Your task to perform on an android device: change the clock display to show seconds Image 0: 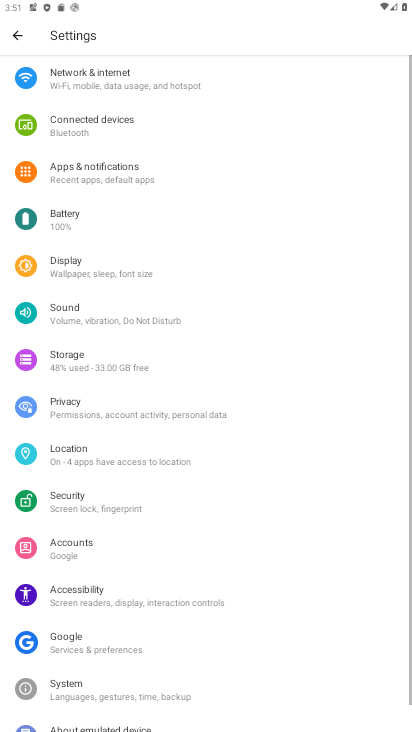
Step 0: press home button
Your task to perform on an android device: change the clock display to show seconds Image 1: 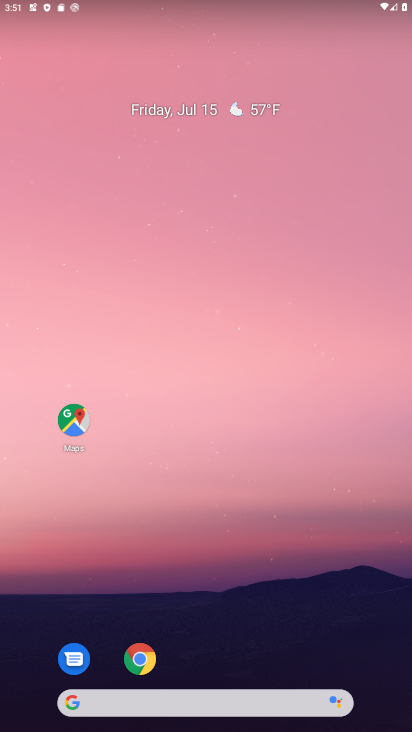
Step 1: drag from (184, 698) to (167, 340)
Your task to perform on an android device: change the clock display to show seconds Image 2: 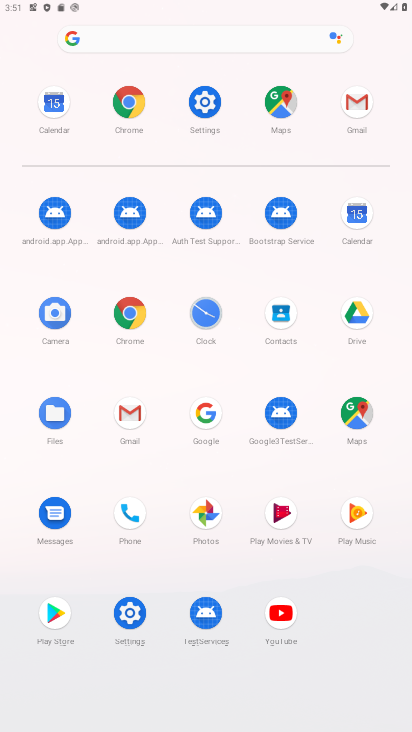
Step 2: click (197, 316)
Your task to perform on an android device: change the clock display to show seconds Image 3: 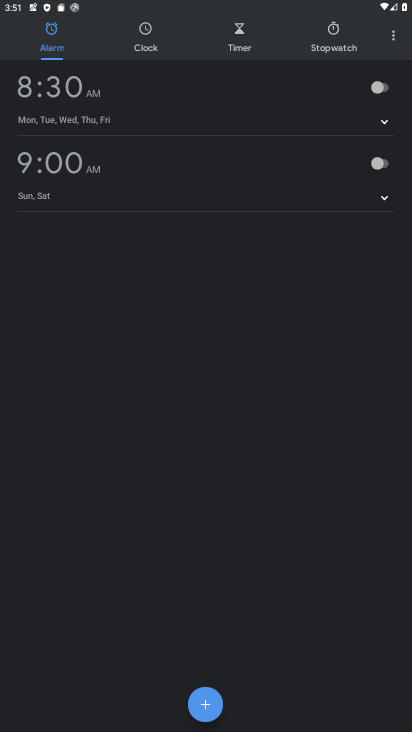
Step 3: click (399, 35)
Your task to perform on an android device: change the clock display to show seconds Image 4: 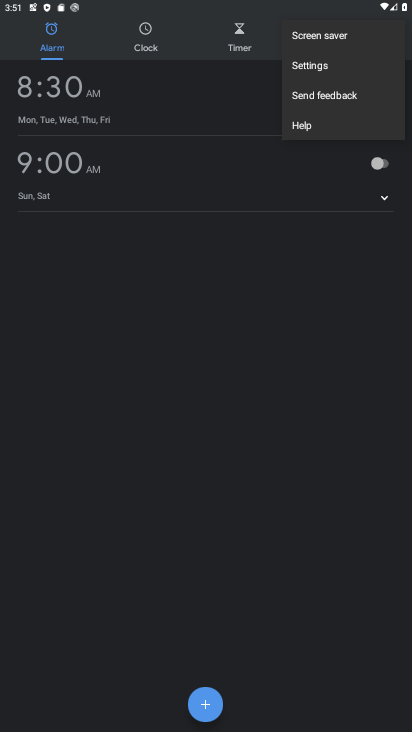
Step 4: click (325, 74)
Your task to perform on an android device: change the clock display to show seconds Image 5: 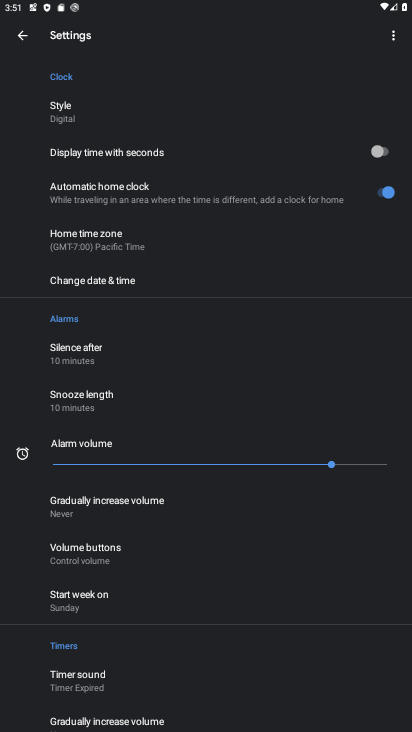
Step 5: click (380, 147)
Your task to perform on an android device: change the clock display to show seconds Image 6: 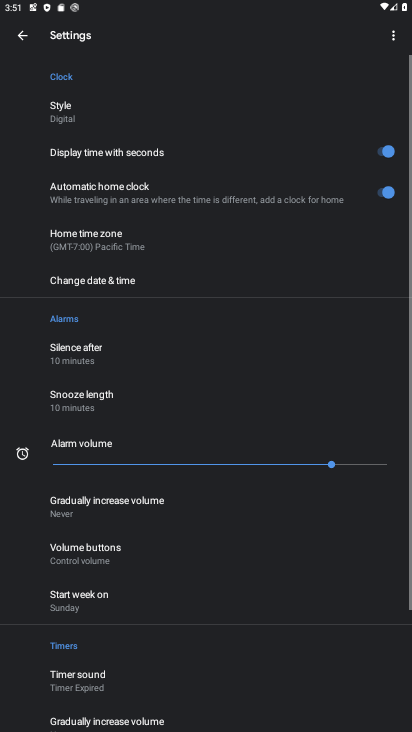
Step 6: task complete